Your task to perform on an android device: find photos in the google photos app Image 0: 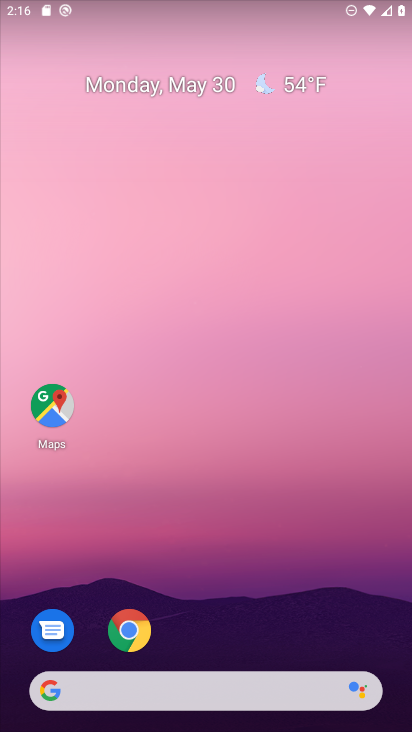
Step 0: press home button
Your task to perform on an android device: find photos in the google photos app Image 1: 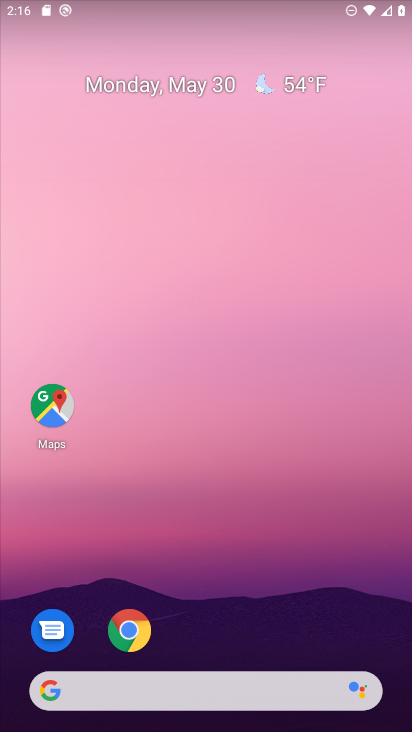
Step 1: drag from (149, 684) to (291, 206)
Your task to perform on an android device: find photos in the google photos app Image 2: 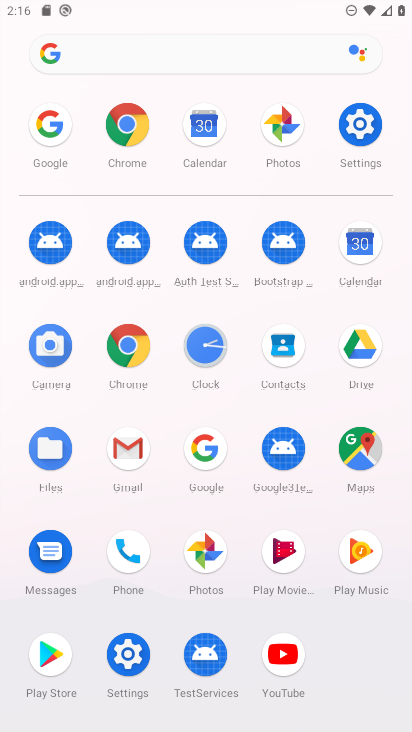
Step 2: click (210, 560)
Your task to perform on an android device: find photos in the google photos app Image 3: 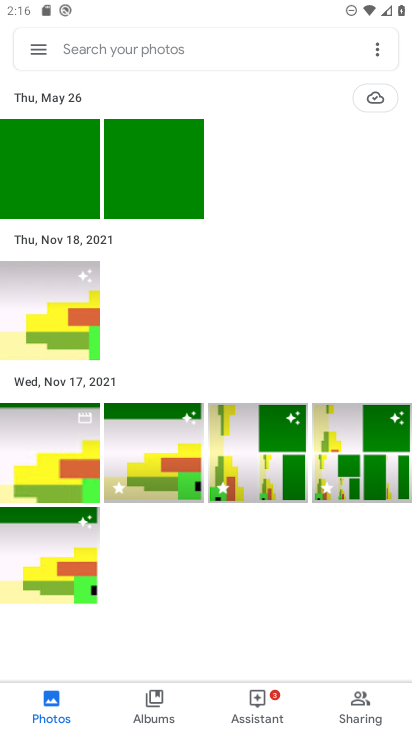
Step 3: task complete